Your task to perform on an android device: change your default location settings in chrome Image 0: 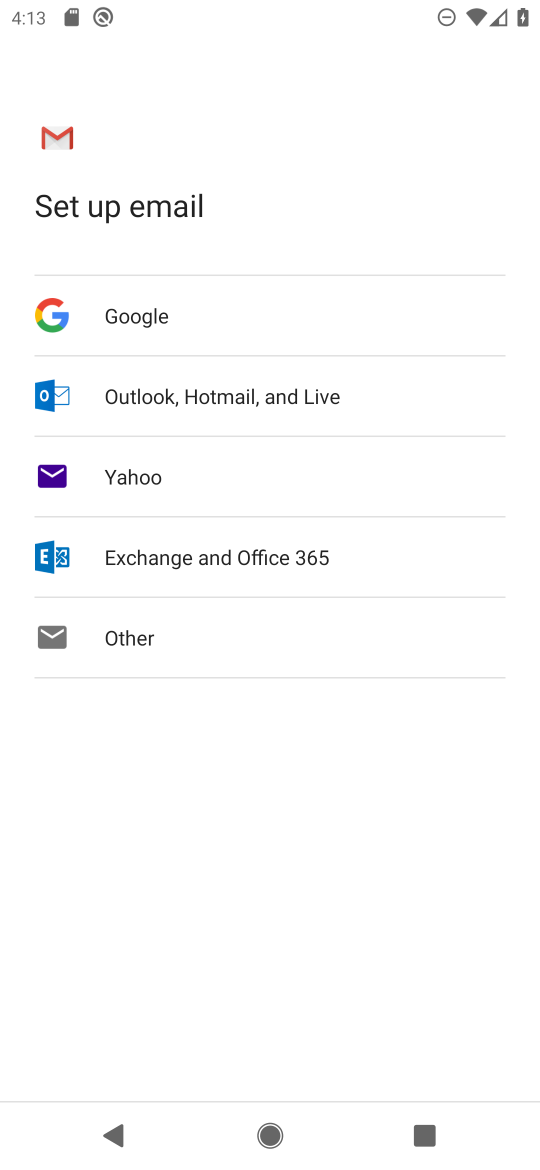
Step 0: press back button
Your task to perform on an android device: change your default location settings in chrome Image 1: 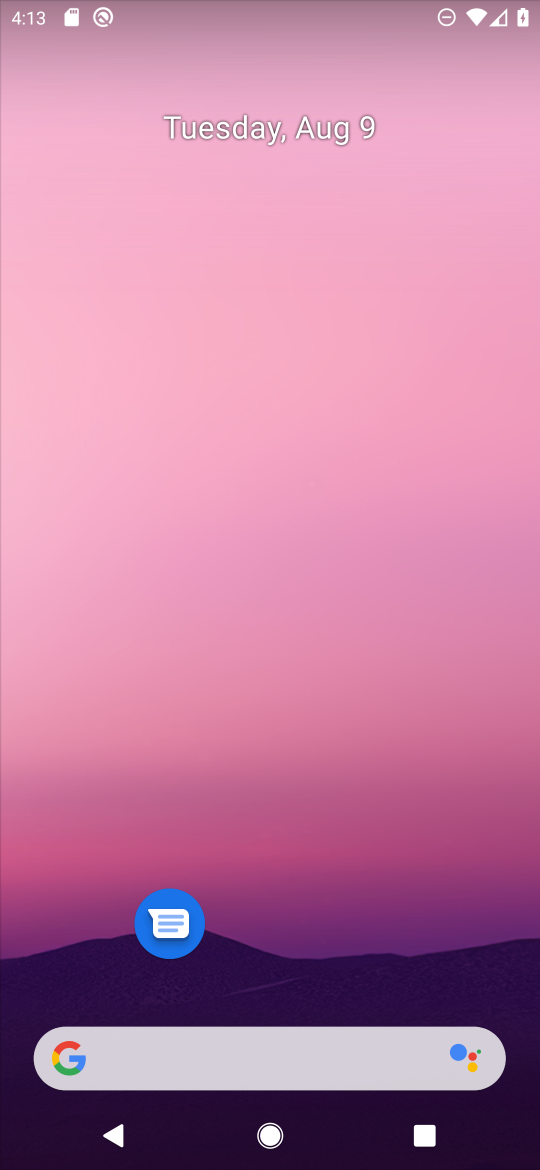
Step 1: drag from (305, 959) to (396, 40)
Your task to perform on an android device: change your default location settings in chrome Image 2: 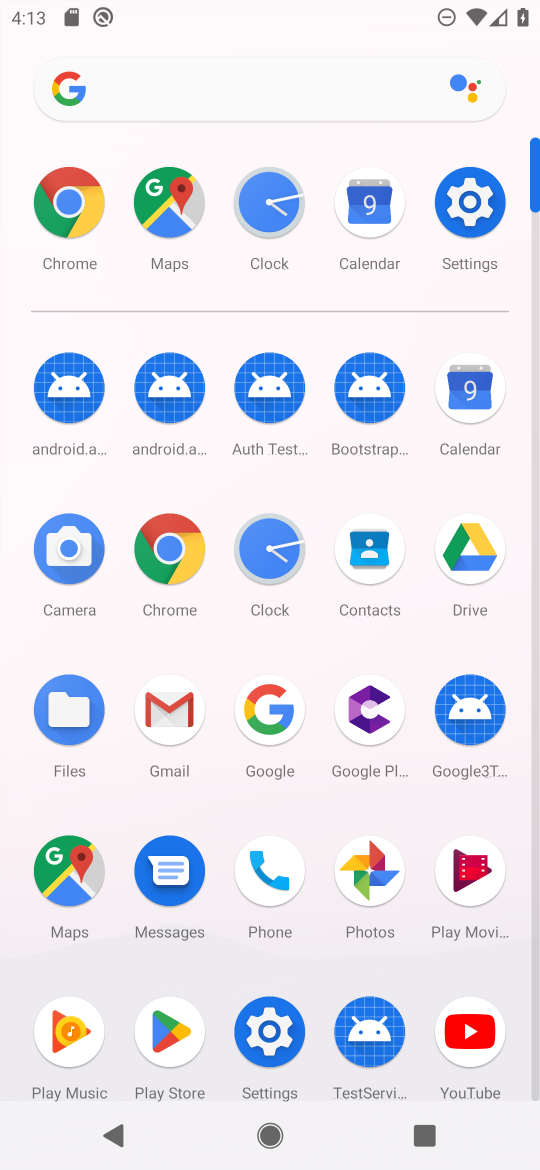
Step 2: click (81, 200)
Your task to perform on an android device: change your default location settings in chrome Image 3: 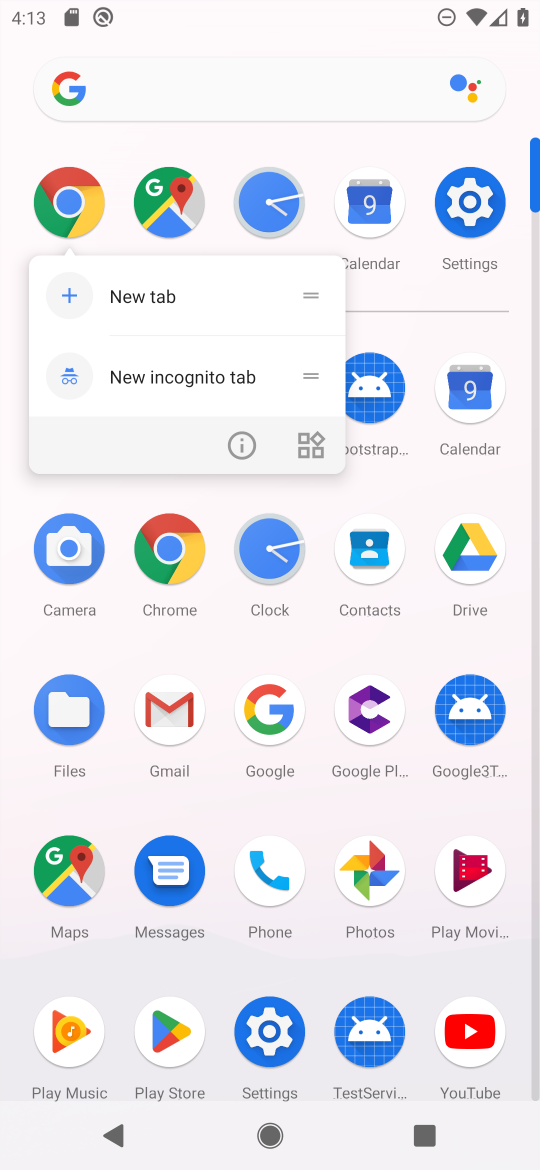
Step 3: click (74, 205)
Your task to perform on an android device: change your default location settings in chrome Image 4: 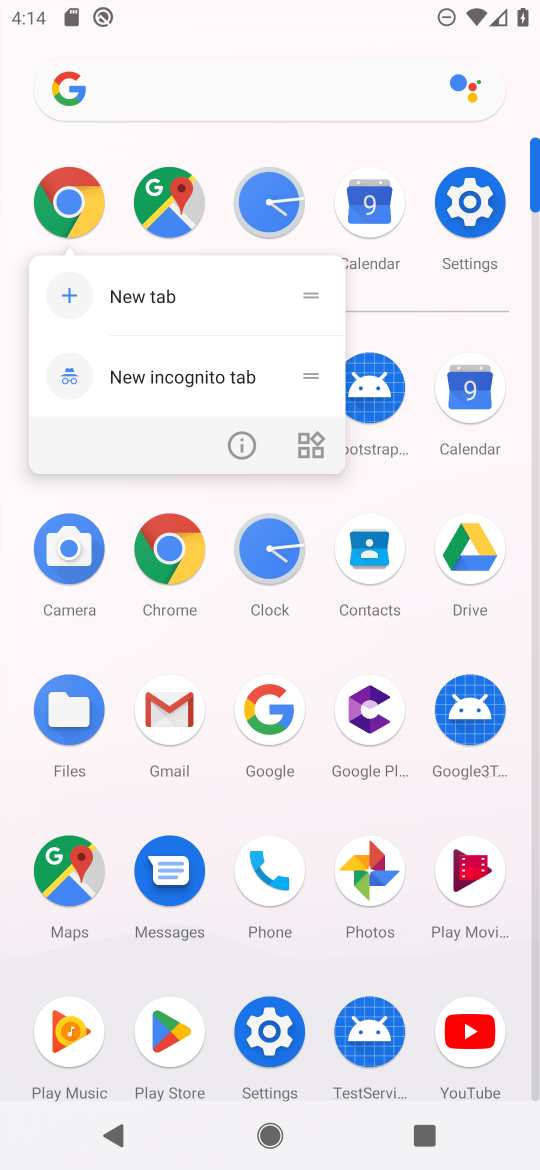
Step 4: click (70, 209)
Your task to perform on an android device: change your default location settings in chrome Image 5: 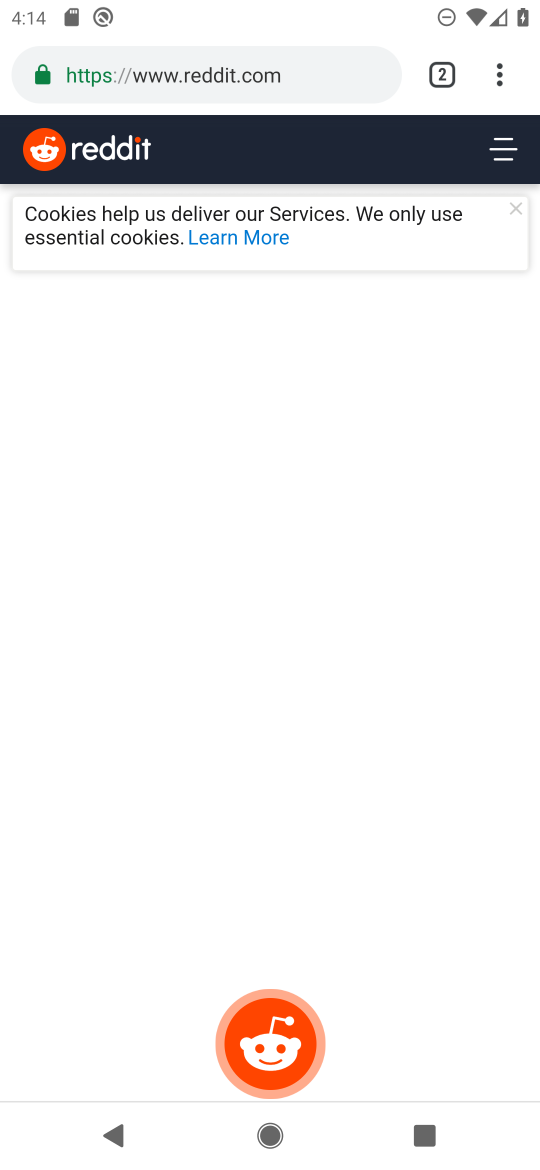
Step 5: click (70, 209)
Your task to perform on an android device: change your default location settings in chrome Image 6: 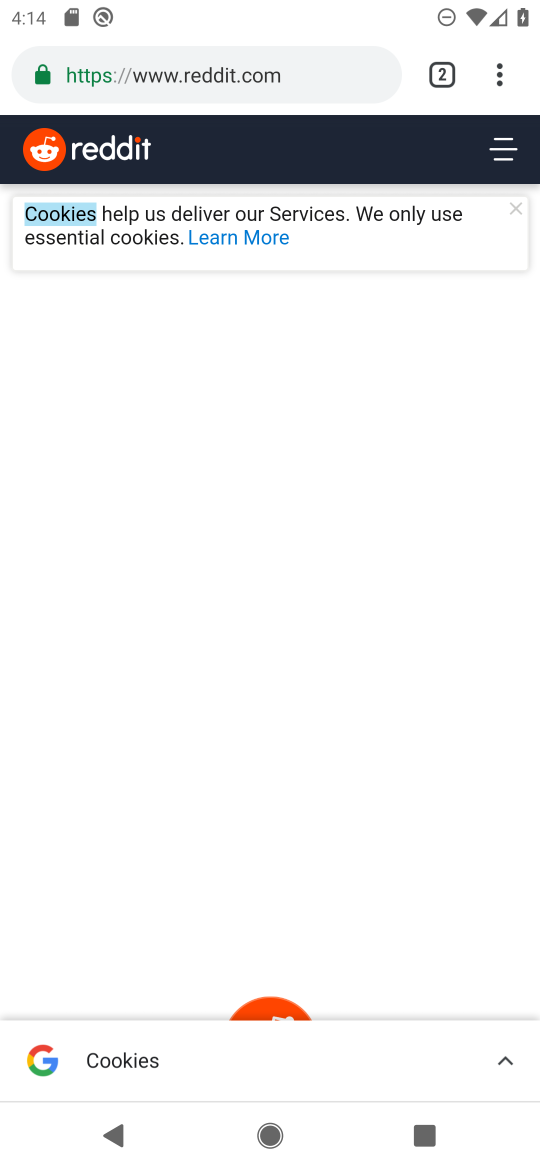
Step 6: drag from (500, 62) to (236, 991)
Your task to perform on an android device: change your default location settings in chrome Image 7: 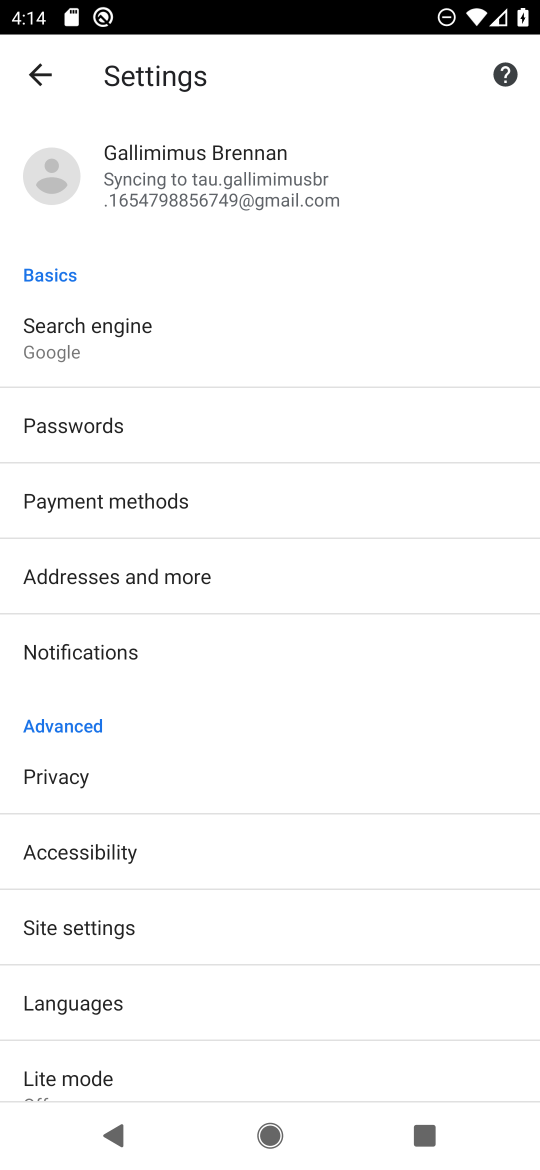
Step 7: click (118, 932)
Your task to perform on an android device: change your default location settings in chrome Image 8: 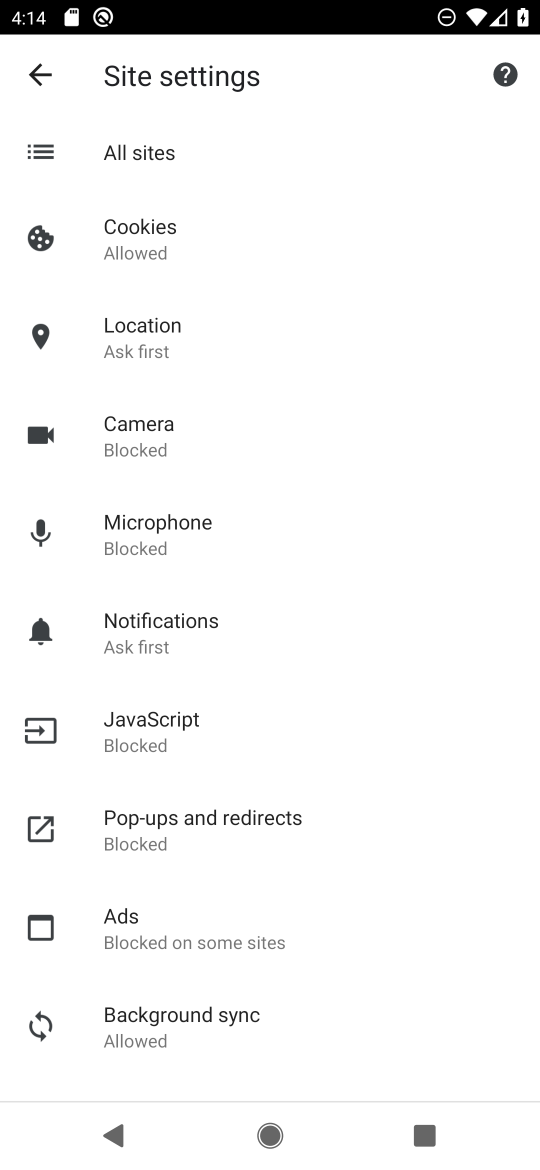
Step 8: click (129, 332)
Your task to perform on an android device: change your default location settings in chrome Image 9: 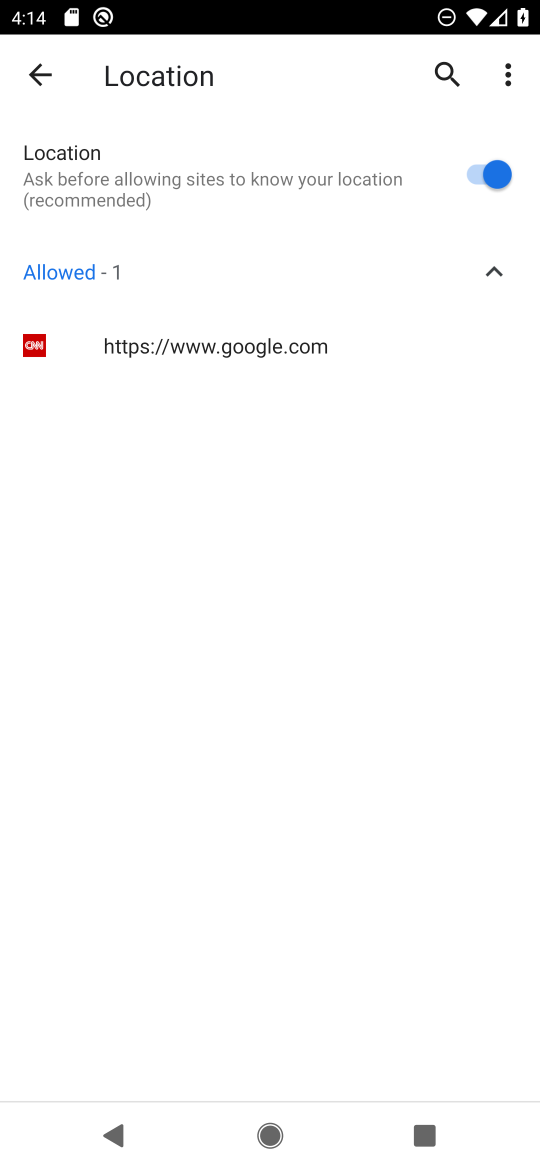
Step 9: click (486, 172)
Your task to perform on an android device: change your default location settings in chrome Image 10: 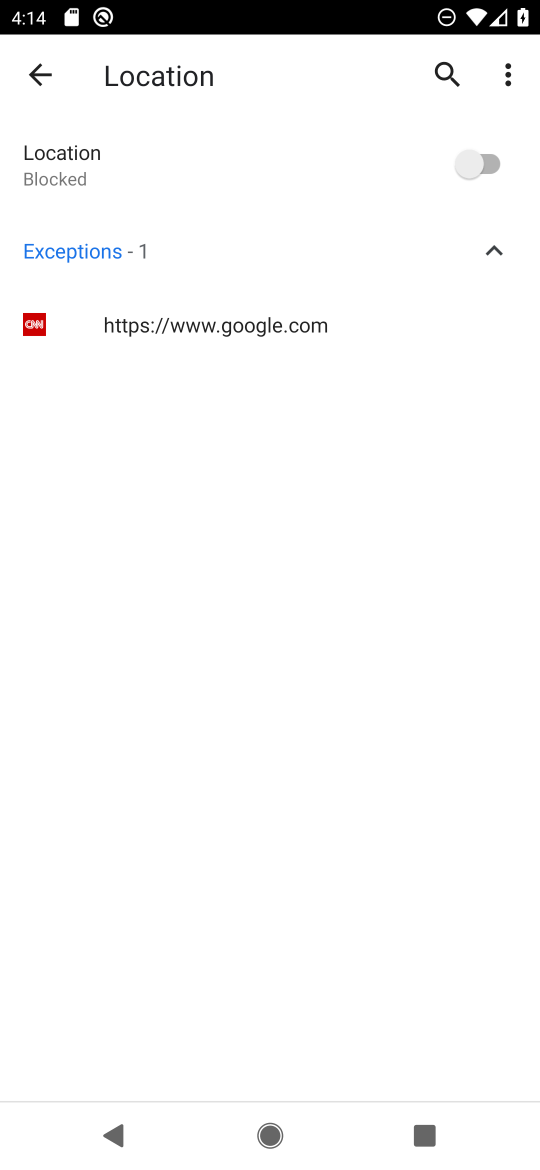
Step 10: task complete